Your task to perform on an android device: Go to network settings Image 0: 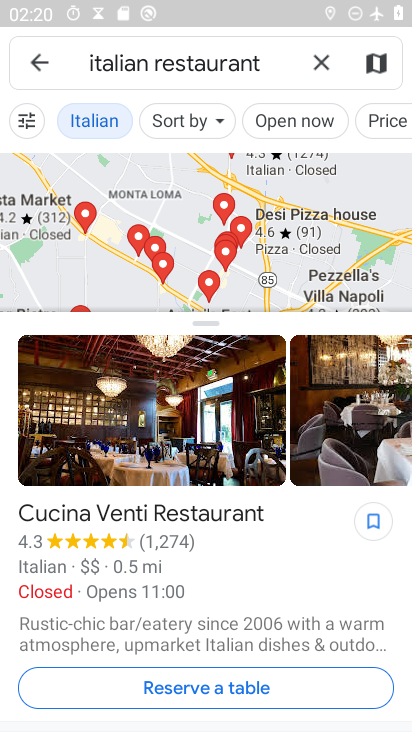
Step 0: press home button
Your task to perform on an android device: Go to network settings Image 1: 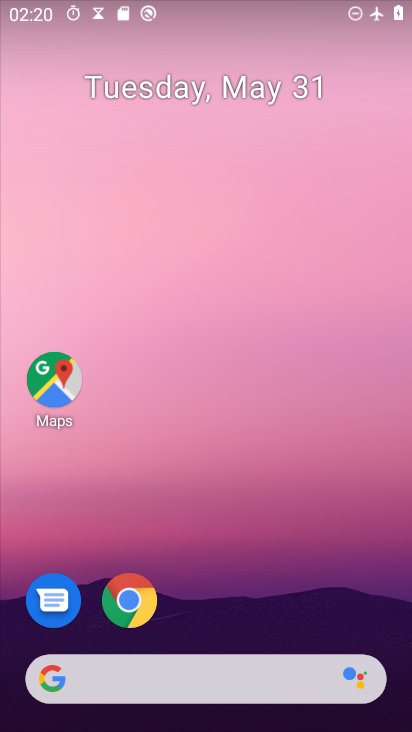
Step 1: drag from (221, 718) to (223, 81)
Your task to perform on an android device: Go to network settings Image 2: 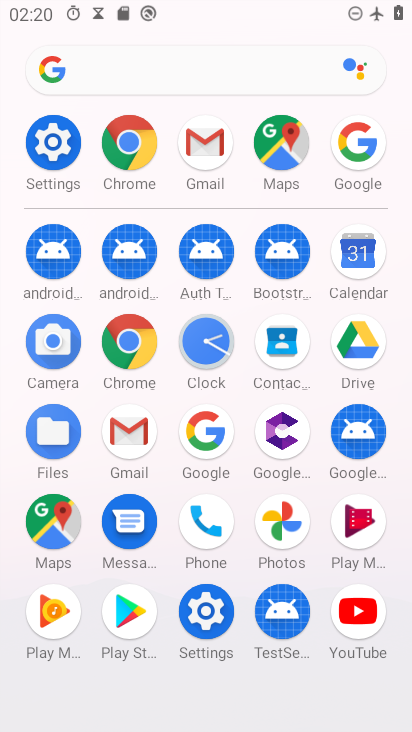
Step 2: click (55, 148)
Your task to perform on an android device: Go to network settings Image 3: 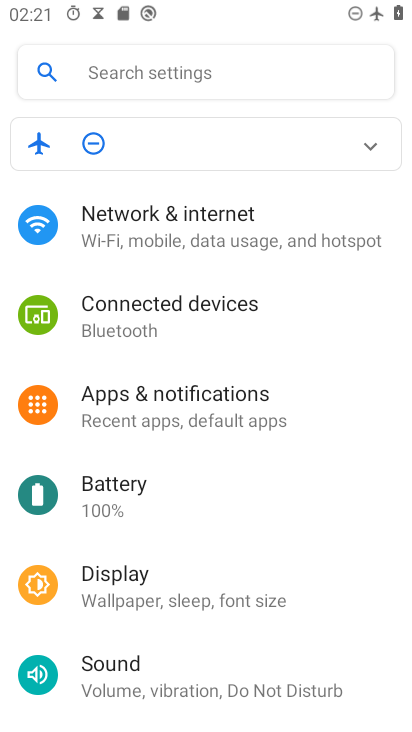
Step 3: click (141, 236)
Your task to perform on an android device: Go to network settings Image 4: 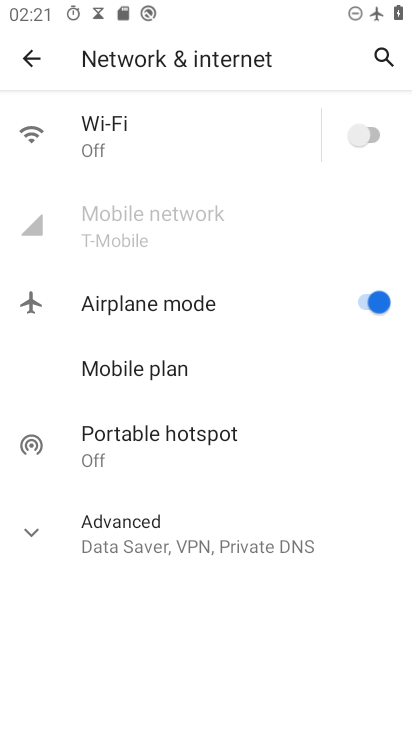
Step 4: click (372, 301)
Your task to perform on an android device: Go to network settings Image 5: 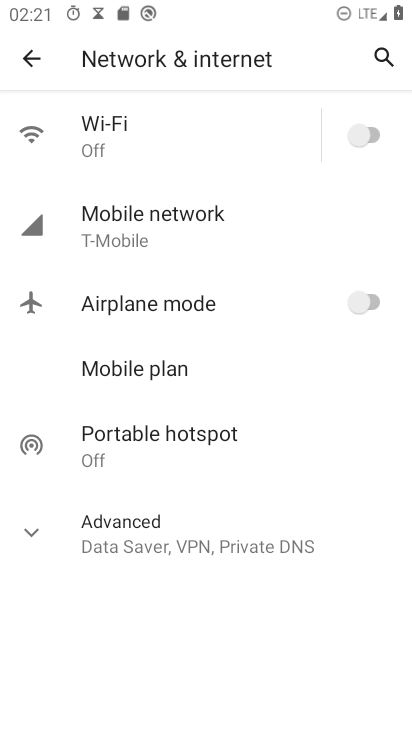
Step 5: click (182, 213)
Your task to perform on an android device: Go to network settings Image 6: 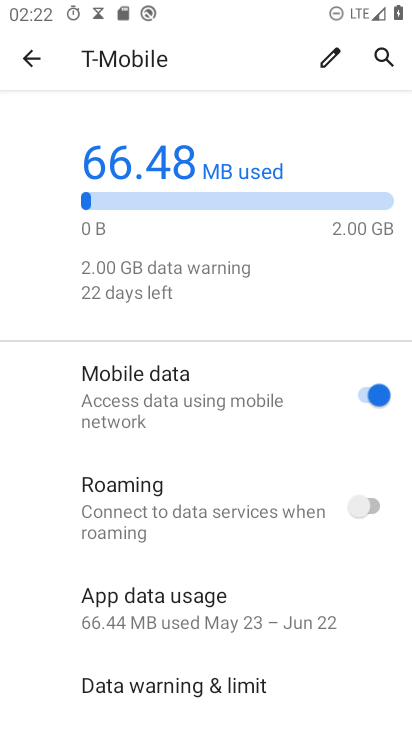
Step 6: task complete